Your task to perform on an android device: turn smart compose on in the gmail app Image 0: 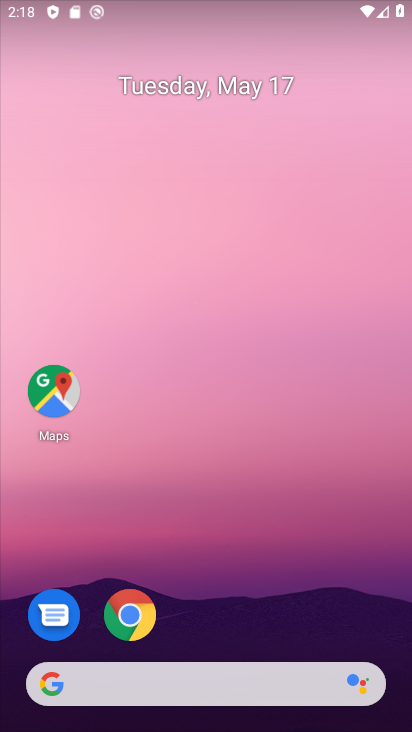
Step 0: drag from (199, 720) to (199, 132)
Your task to perform on an android device: turn smart compose on in the gmail app Image 1: 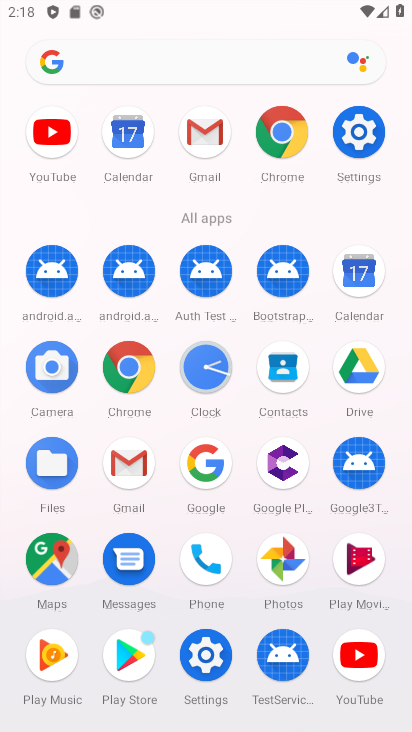
Step 1: click (124, 467)
Your task to perform on an android device: turn smart compose on in the gmail app Image 2: 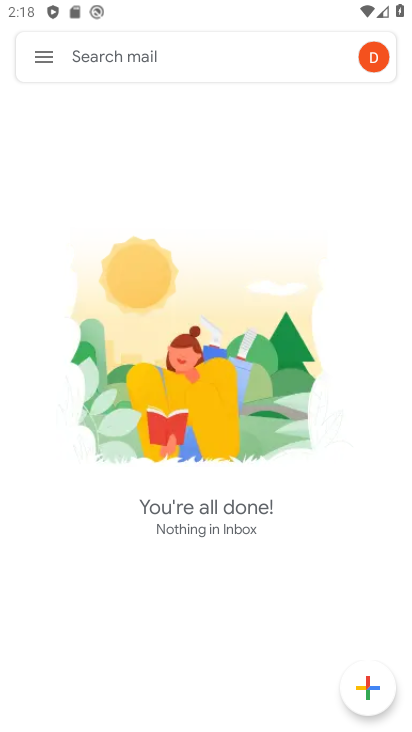
Step 2: click (44, 61)
Your task to perform on an android device: turn smart compose on in the gmail app Image 3: 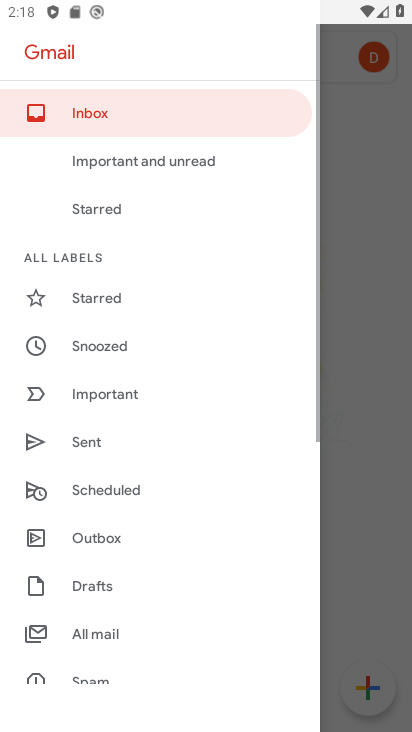
Step 3: drag from (101, 576) to (113, 190)
Your task to perform on an android device: turn smart compose on in the gmail app Image 4: 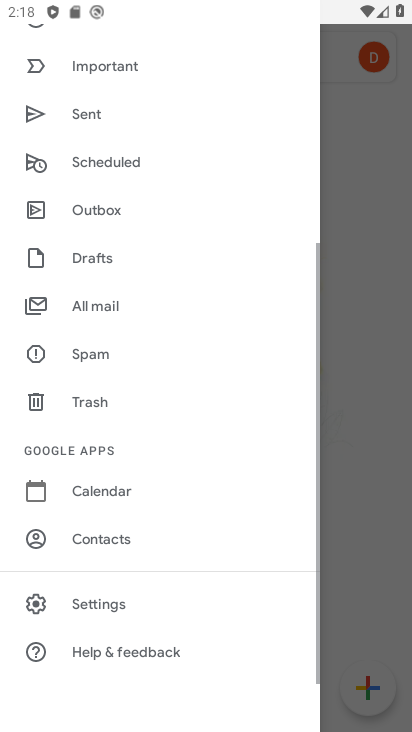
Step 4: click (90, 601)
Your task to perform on an android device: turn smart compose on in the gmail app Image 5: 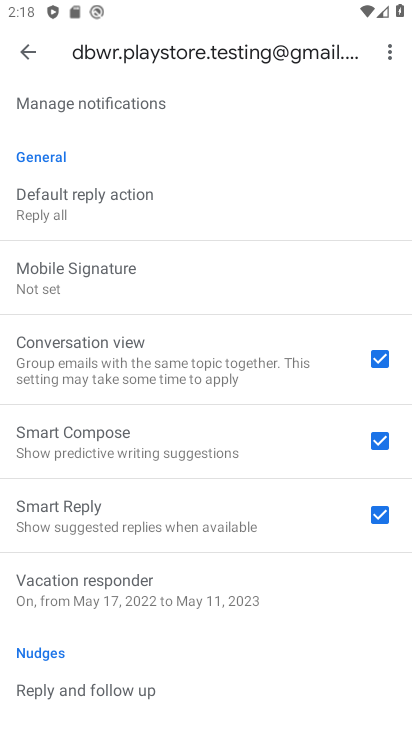
Step 5: task complete